Your task to perform on an android device: turn off translation in the chrome app Image 0: 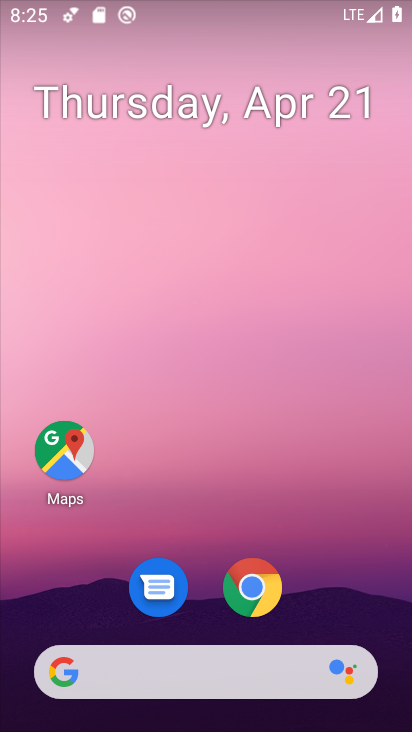
Step 0: click (250, 583)
Your task to perform on an android device: turn off translation in the chrome app Image 1: 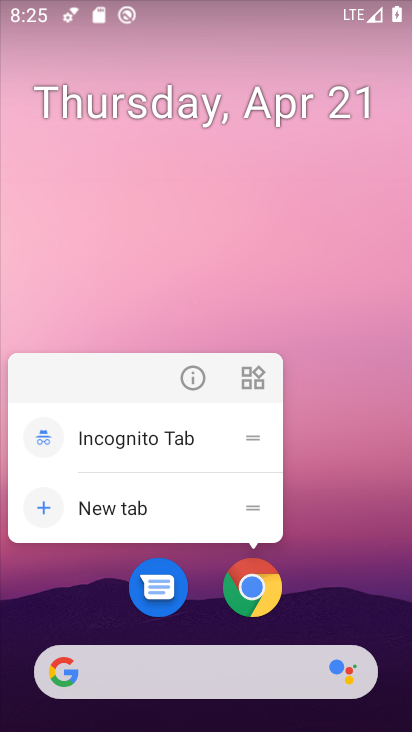
Step 1: click (250, 583)
Your task to perform on an android device: turn off translation in the chrome app Image 2: 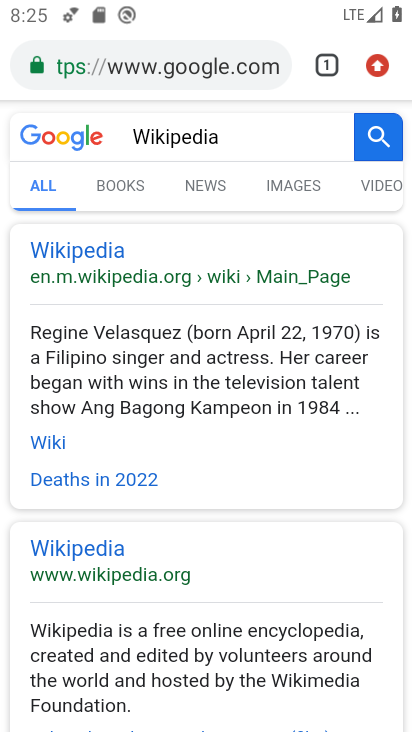
Step 2: click (381, 66)
Your task to perform on an android device: turn off translation in the chrome app Image 3: 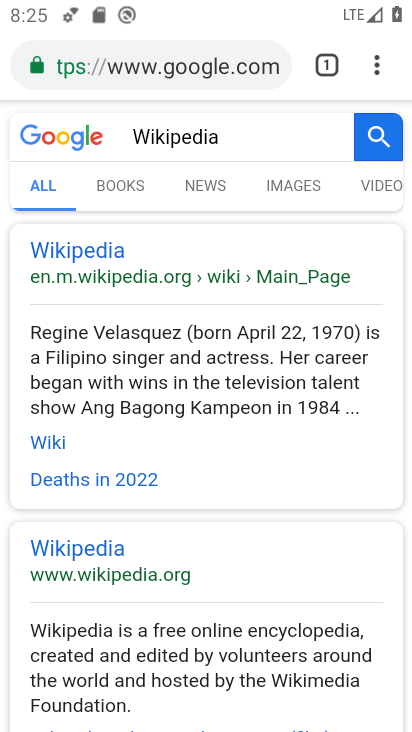
Step 3: click (381, 66)
Your task to perform on an android device: turn off translation in the chrome app Image 4: 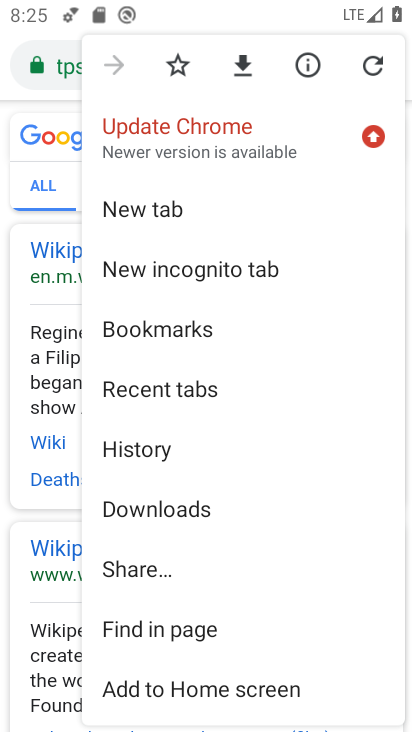
Step 4: drag from (360, 495) to (349, 377)
Your task to perform on an android device: turn off translation in the chrome app Image 5: 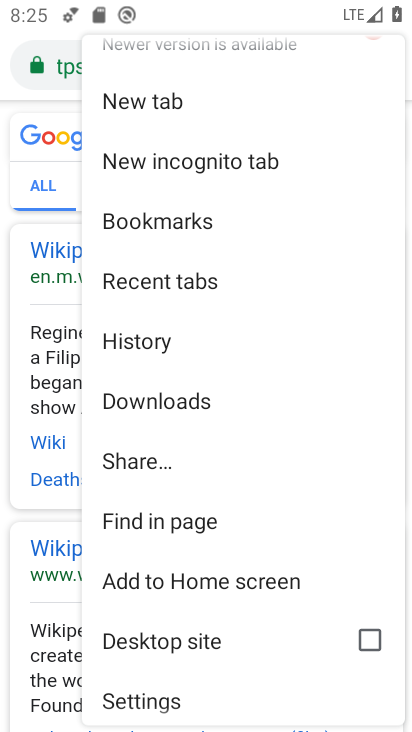
Step 5: click (140, 698)
Your task to perform on an android device: turn off translation in the chrome app Image 6: 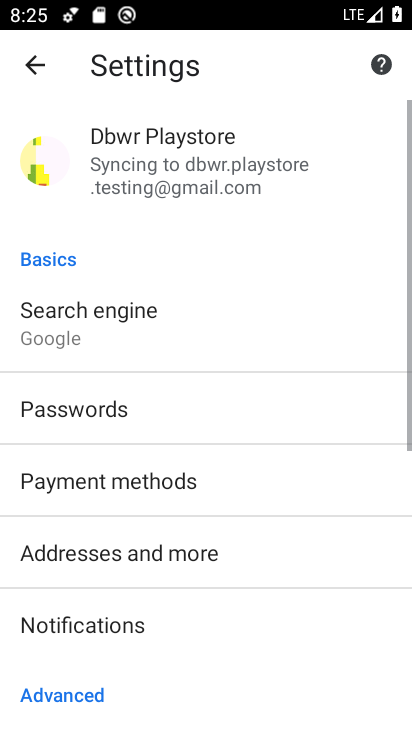
Step 6: drag from (282, 600) to (284, 323)
Your task to perform on an android device: turn off translation in the chrome app Image 7: 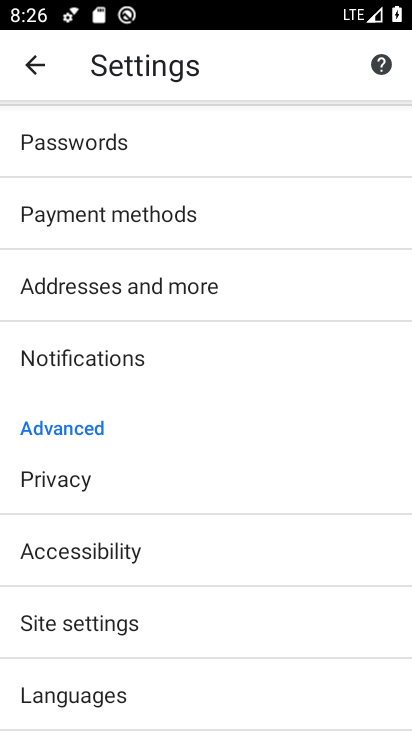
Step 7: drag from (280, 692) to (306, 388)
Your task to perform on an android device: turn off translation in the chrome app Image 8: 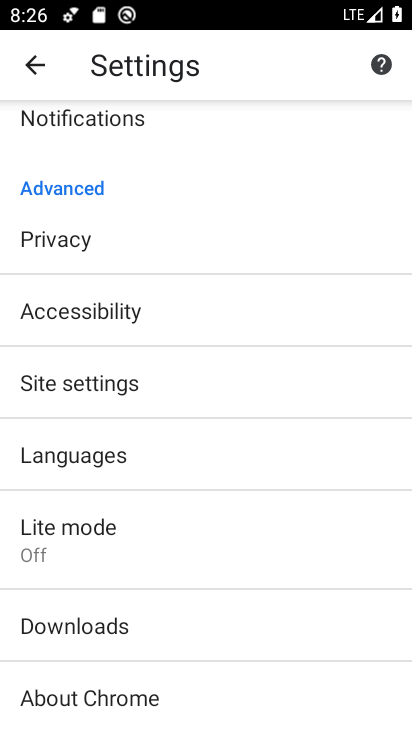
Step 8: drag from (285, 684) to (268, 369)
Your task to perform on an android device: turn off translation in the chrome app Image 9: 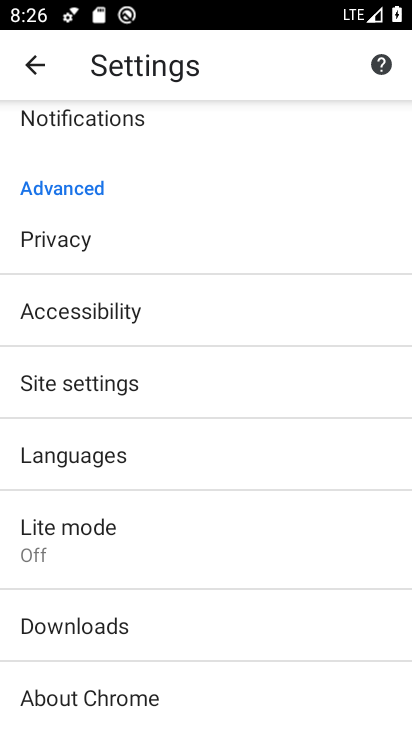
Step 9: drag from (338, 580) to (345, 374)
Your task to perform on an android device: turn off translation in the chrome app Image 10: 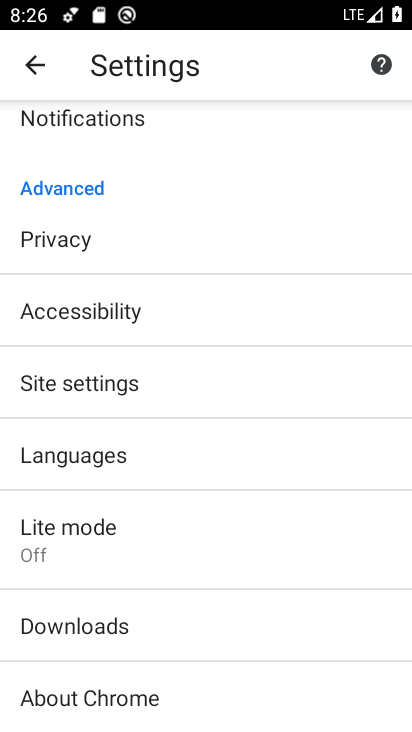
Step 10: click (62, 444)
Your task to perform on an android device: turn off translation in the chrome app Image 11: 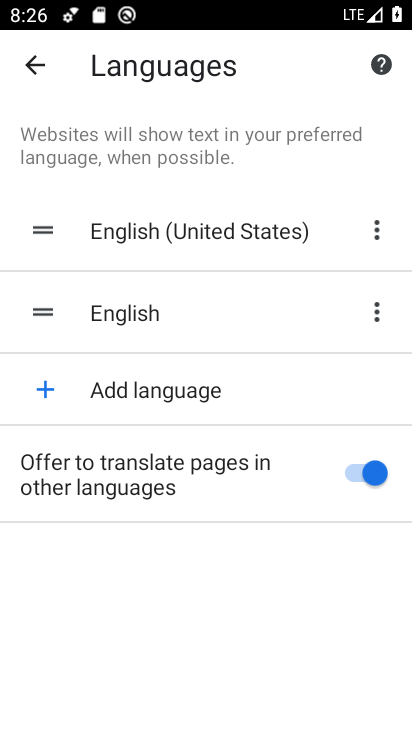
Step 11: click (346, 468)
Your task to perform on an android device: turn off translation in the chrome app Image 12: 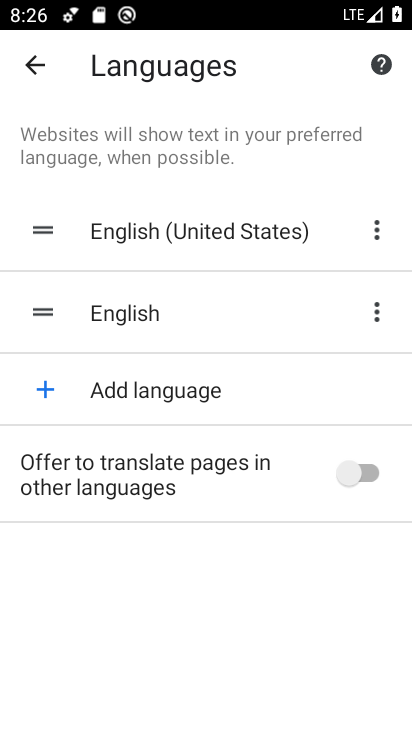
Step 12: task complete